Your task to perform on an android device: add a contact Image 0: 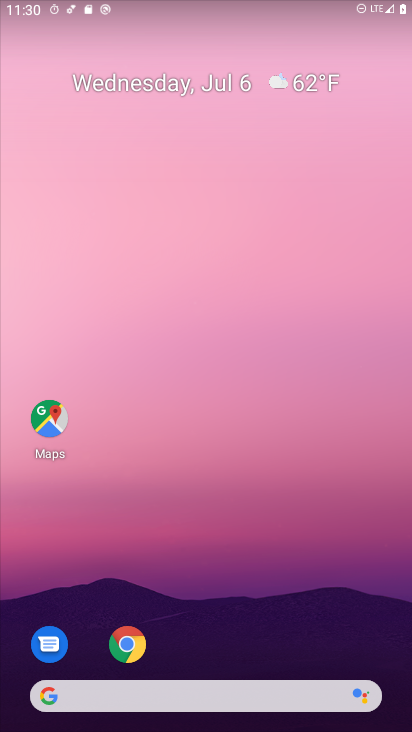
Step 0: press home button
Your task to perform on an android device: add a contact Image 1: 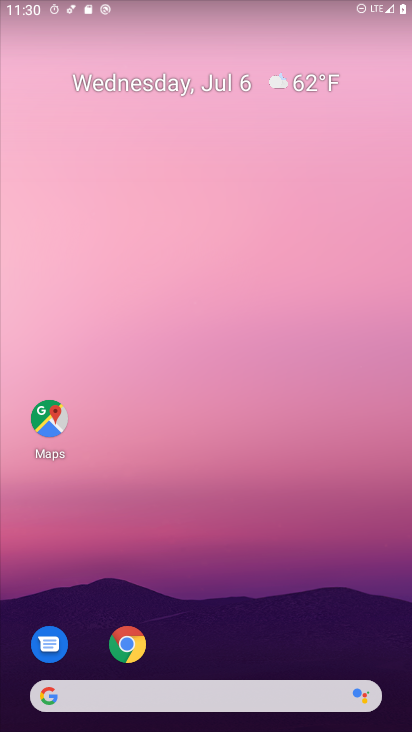
Step 1: drag from (257, 652) to (318, 2)
Your task to perform on an android device: add a contact Image 2: 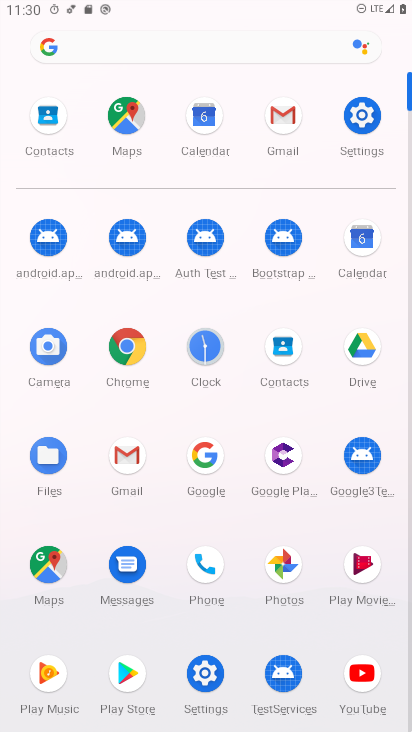
Step 2: click (282, 342)
Your task to perform on an android device: add a contact Image 3: 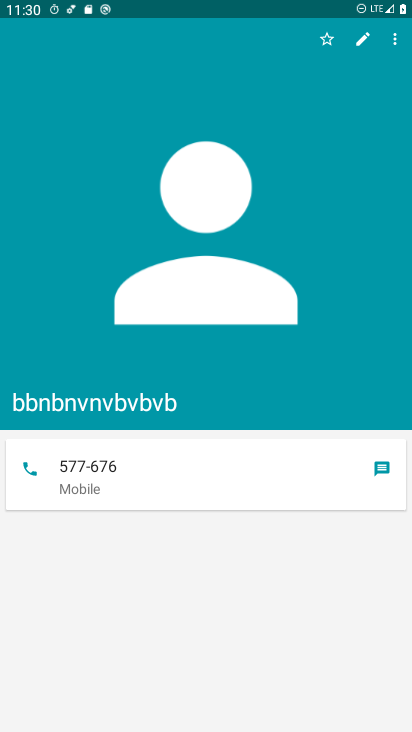
Step 3: press home button
Your task to perform on an android device: add a contact Image 4: 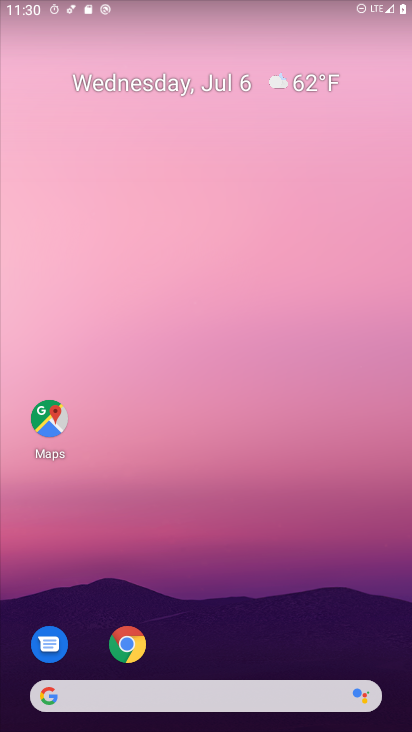
Step 4: drag from (251, 656) to (201, 134)
Your task to perform on an android device: add a contact Image 5: 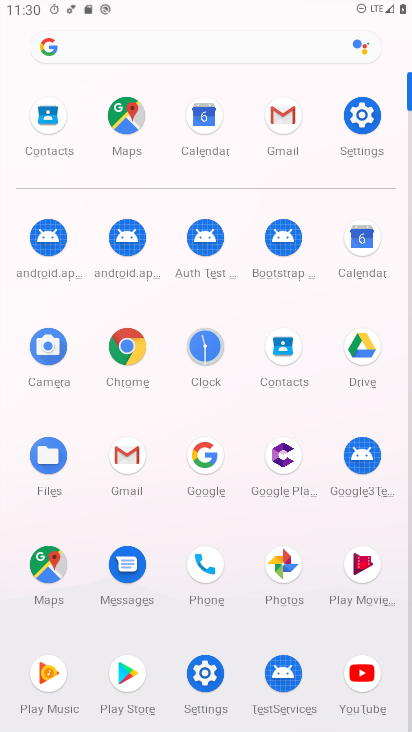
Step 5: click (280, 349)
Your task to perform on an android device: add a contact Image 6: 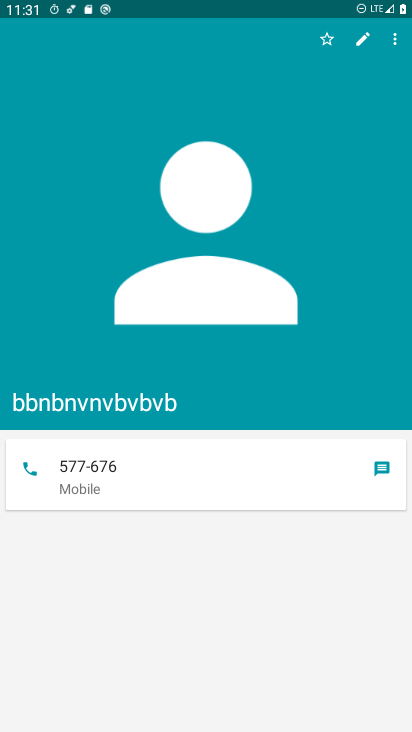
Step 6: press back button
Your task to perform on an android device: add a contact Image 7: 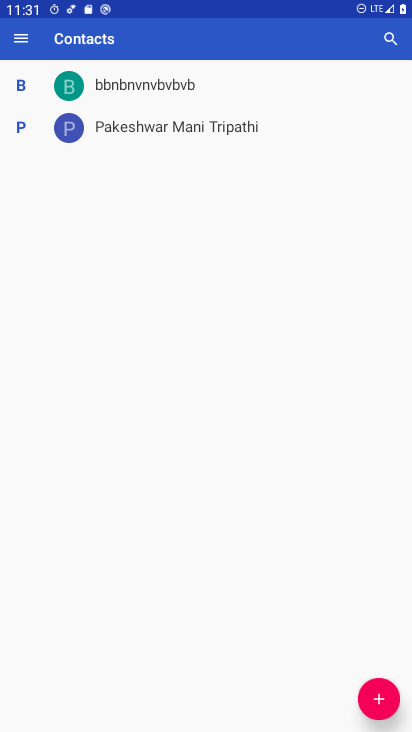
Step 7: click (373, 692)
Your task to perform on an android device: add a contact Image 8: 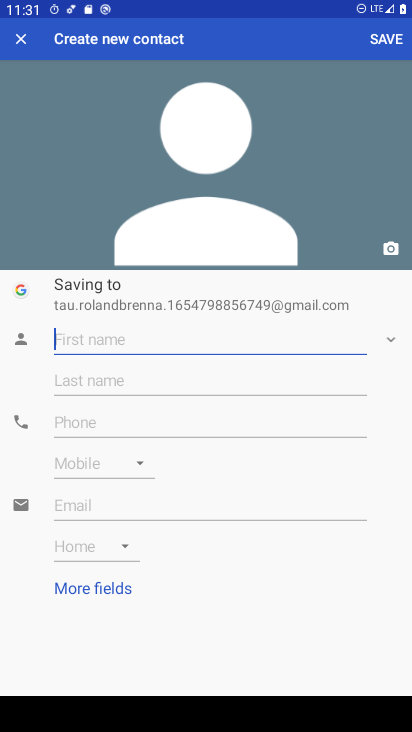
Step 8: type "vhghghgh"
Your task to perform on an android device: add a contact Image 9: 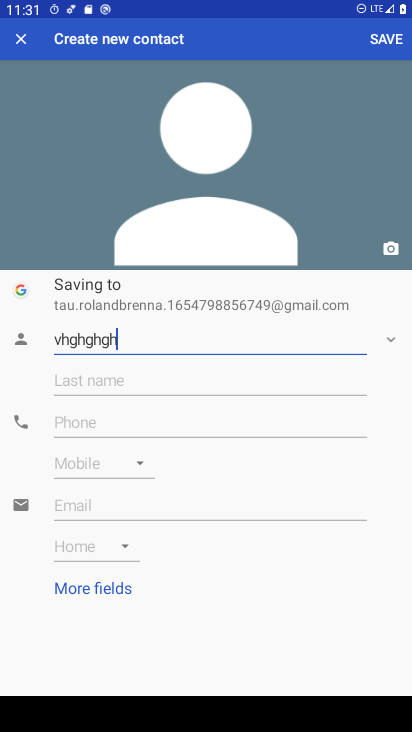
Step 9: click (91, 417)
Your task to perform on an android device: add a contact Image 10: 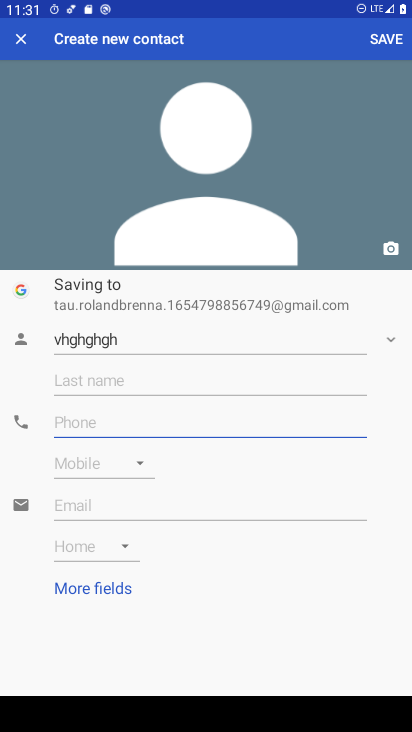
Step 10: type "7575757"
Your task to perform on an android device: add a contact Image 11: 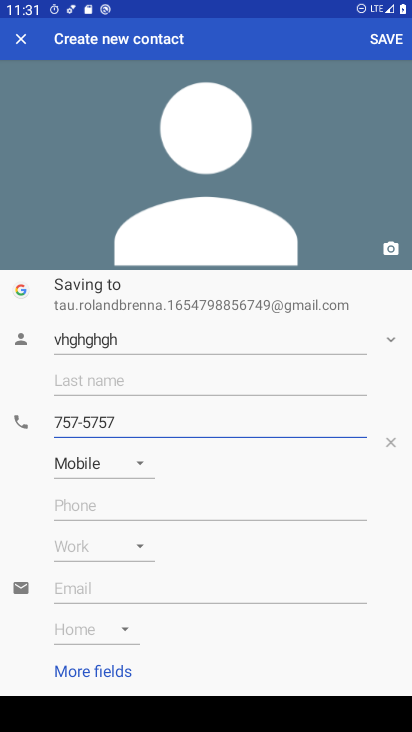
Step 11: click (393, 38)
Your task to perform on an android device: add a contact Image 12: 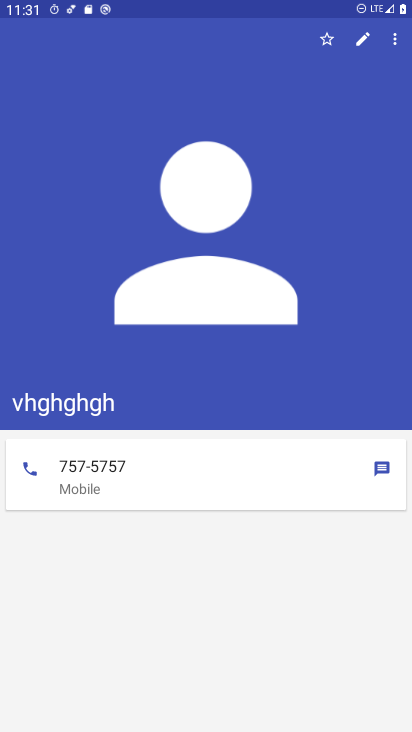
Step 12: task complete